Your task to perform on an android device: Show me the alarms in the clock app Image 0: 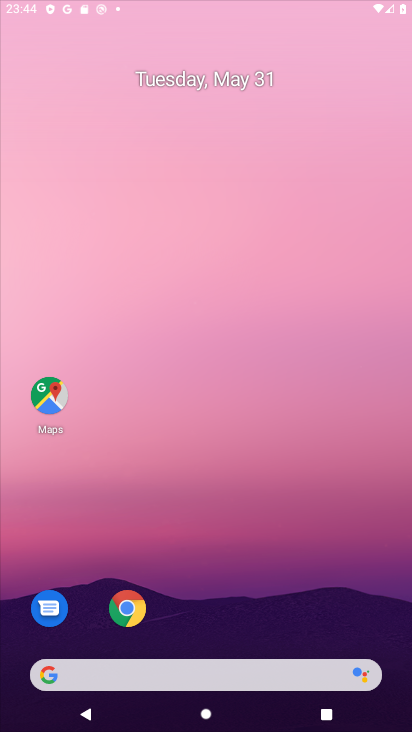
Step 0: press home button
Your task to perform on an android device: Show me the alarms in the clock app Image 1: 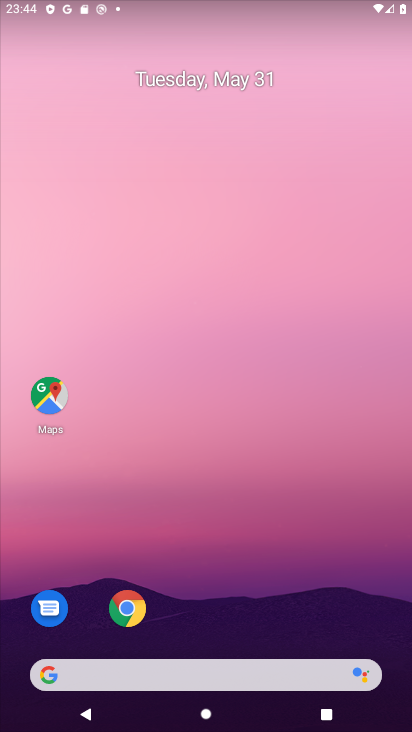
Step 1: drag from (204, 622) to (213, 139)
Your task to perform on an android device: Show me the alarms in the clock app Image 2: 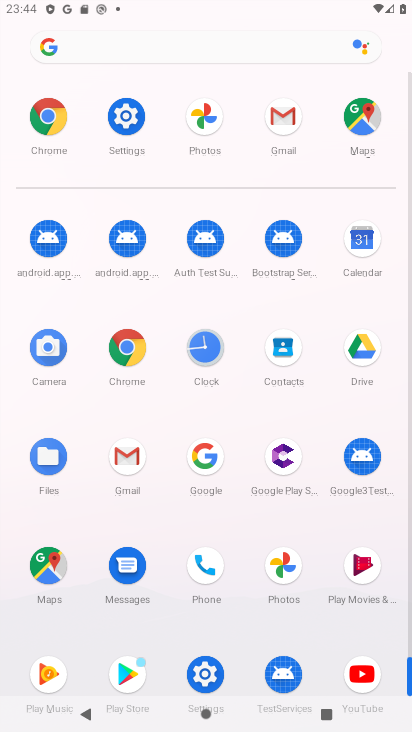
Step 2: click (192, 354)
Your task to perform on an android device: Show me the alarms in the clock app Image 3: 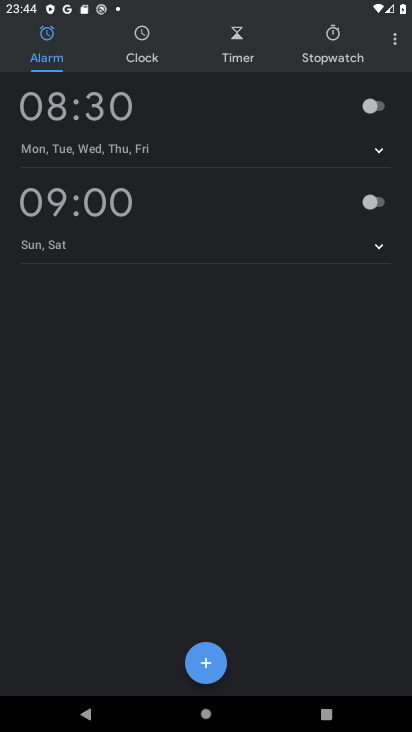
Step 3: task complete